Your task to perform on an android device: check android version Image 0: 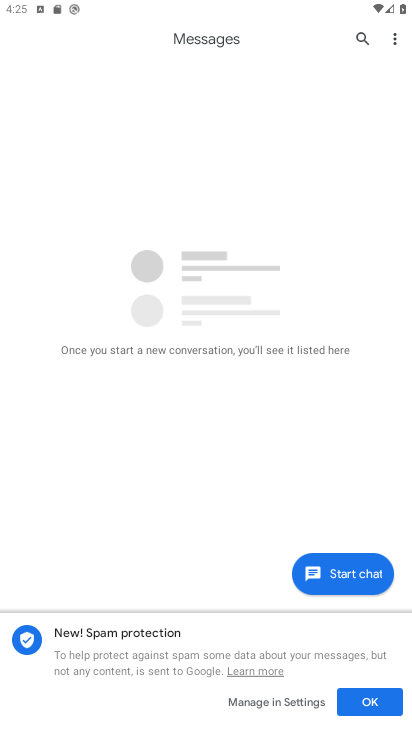
Step 0: press home button
Your task to perform on an android device: check android version Image 1: 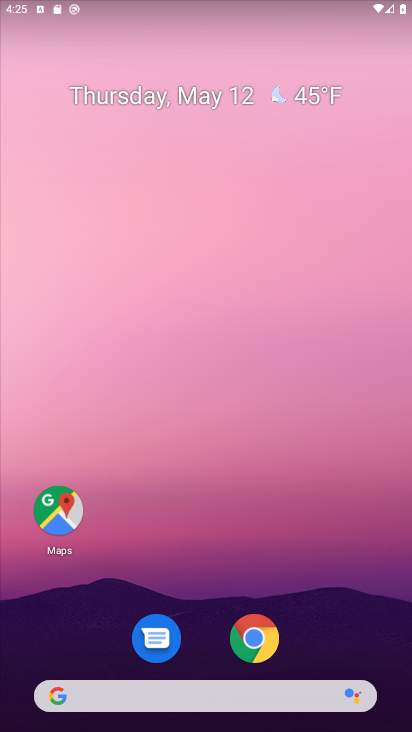
Step 1: drag from (319, 581) to (228, 84)
Your task to perform on an android device: check android version Image 2: 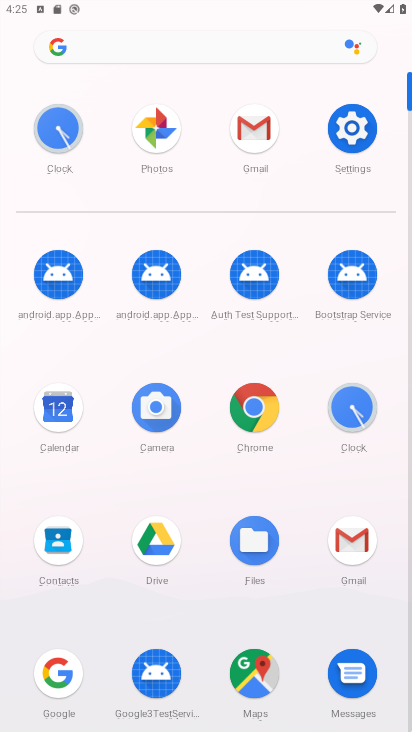
Step 2: click (354, 135)
Your task to perform on an android device: check android version Image 3: 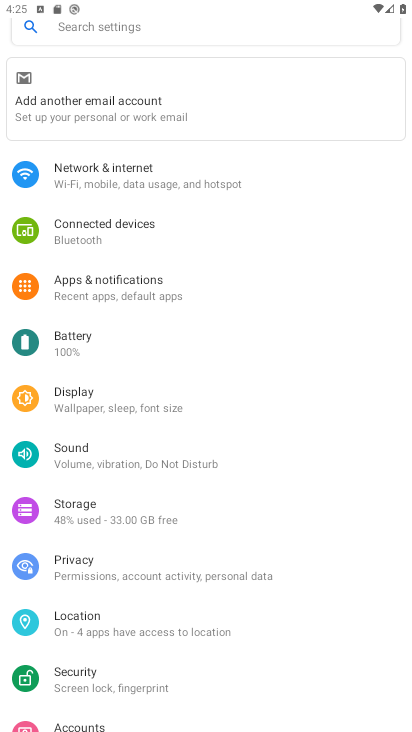
Step 3: drag from (214, 670) to (206, 24)
Your task to perform on an android device: check android version Image 4: 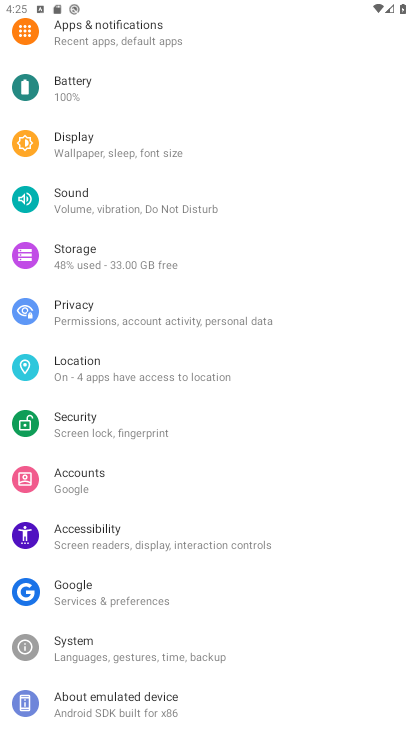
Step 4: click (181, 712)
Your task to perform on an android device: check android version Image 5: 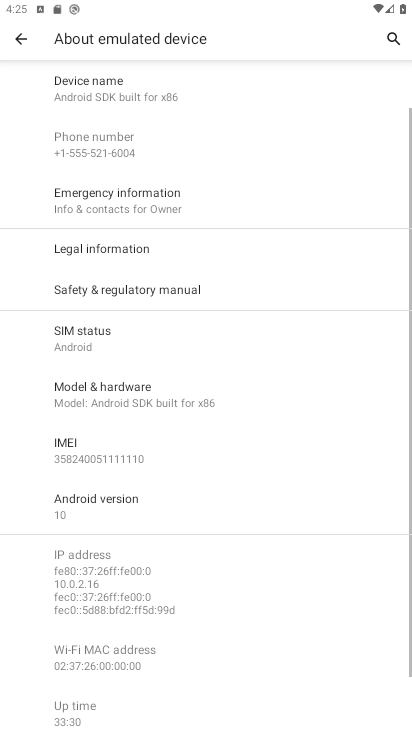
Step 5: click (110, 498)
Your task to perform on an android device: check android version Image 6: 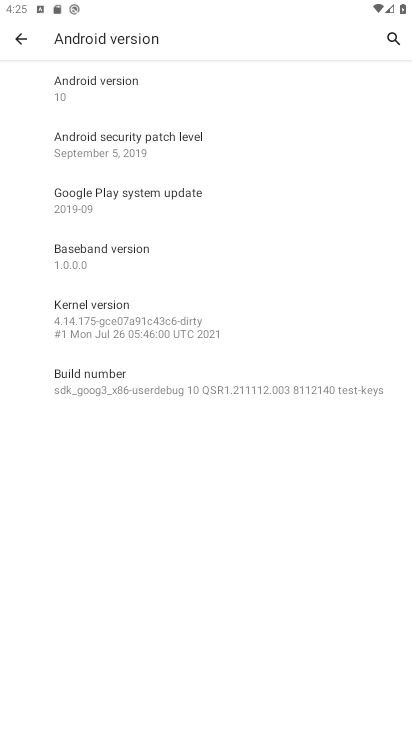
Step 6: task complete